Your task to perform on an android device: What's the news in theFalkland Islands? Image 0: 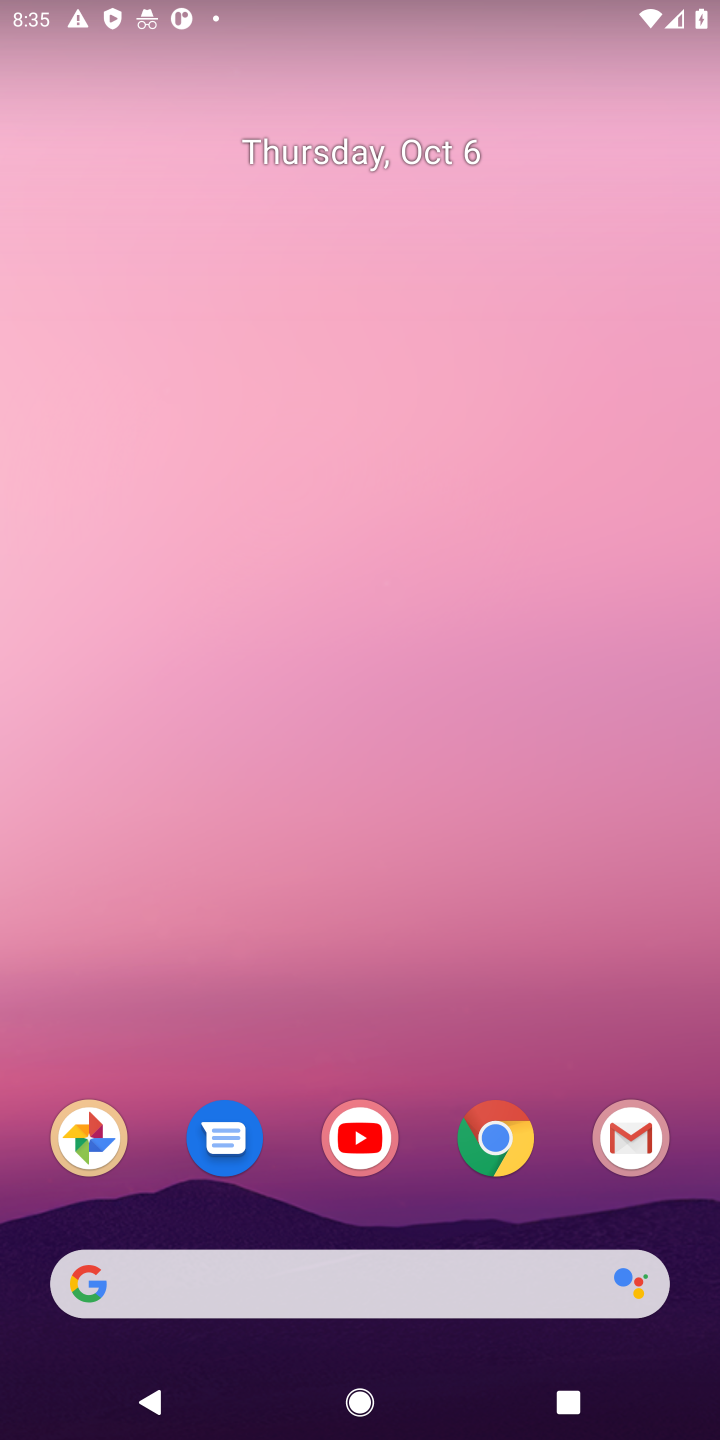
Step 0: click (493, 1137)
Your task to perform on an android device: What's the news in theFalkland Islands? Image 1: 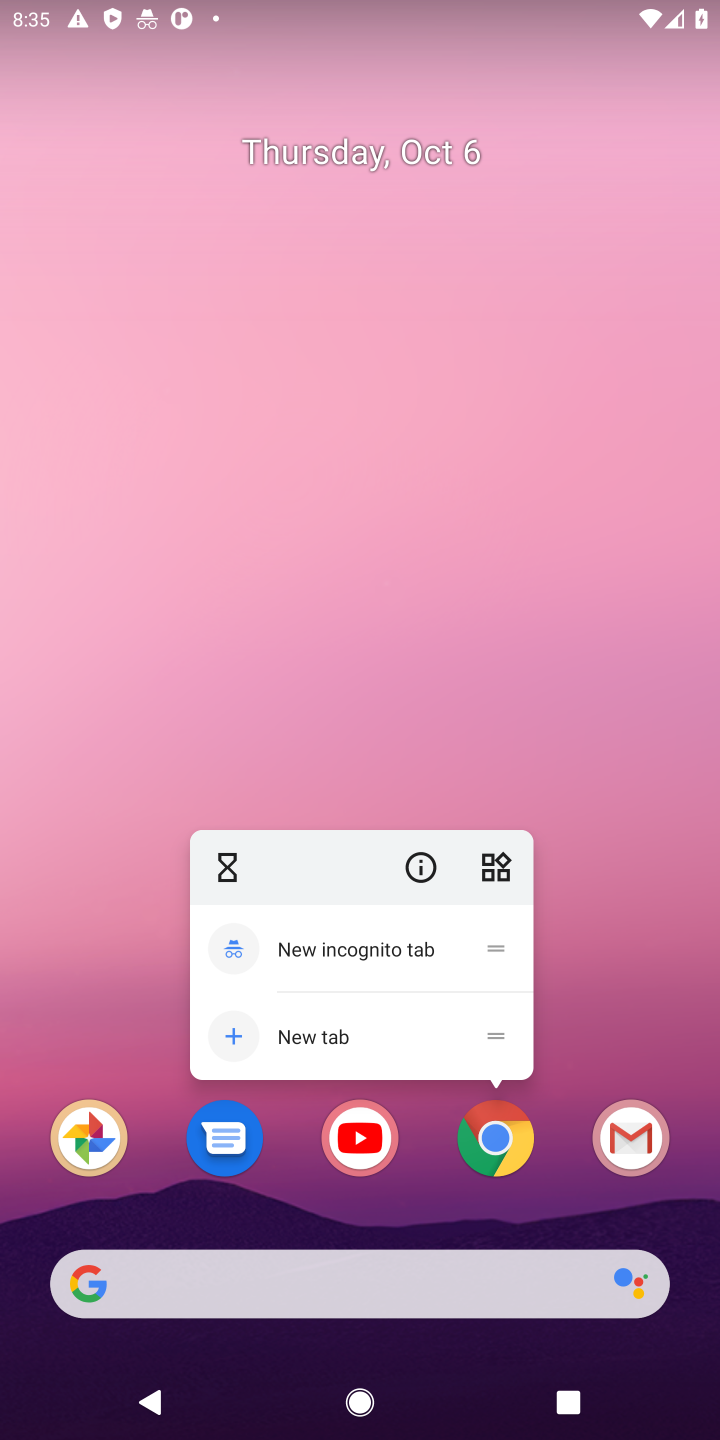
Step 1: click (498, 1132)
Your task to perform on an android device: What's the news in theFalkland Islands? Image 2: 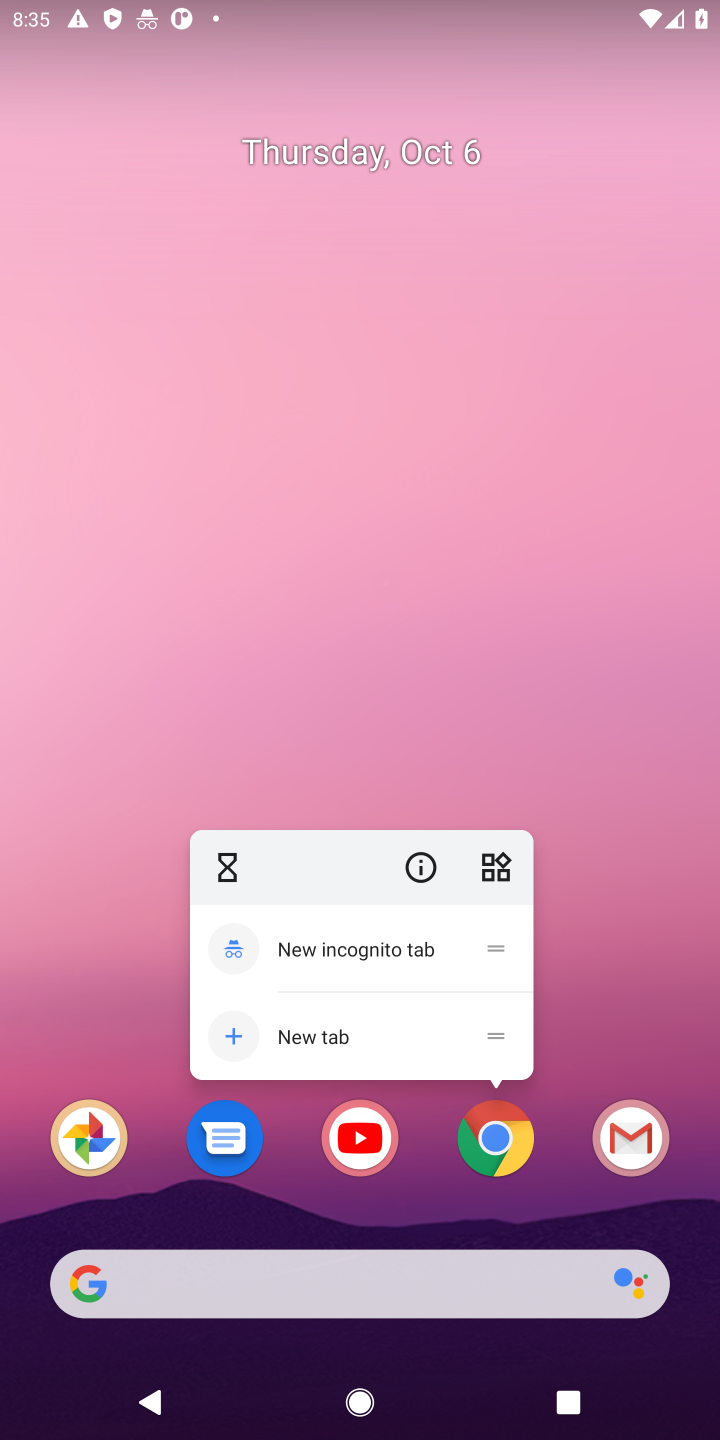
Step 2: click (498, 1132)
Your task to perform on an android device: What's the news in theFalkland Islands? Image 3: 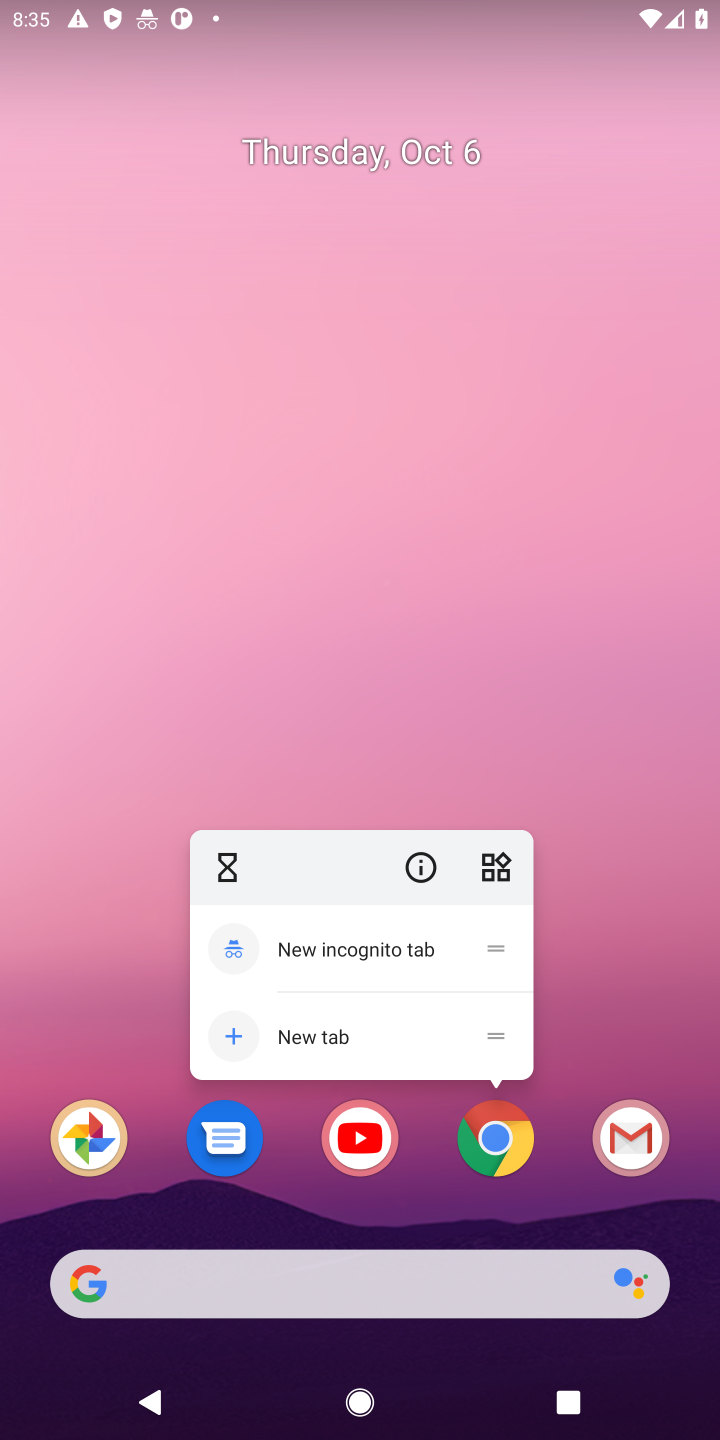
Step 3: click (498, 1136)
Your task to perform on an android device: What's the news in theFalkland Islands? Image 4: 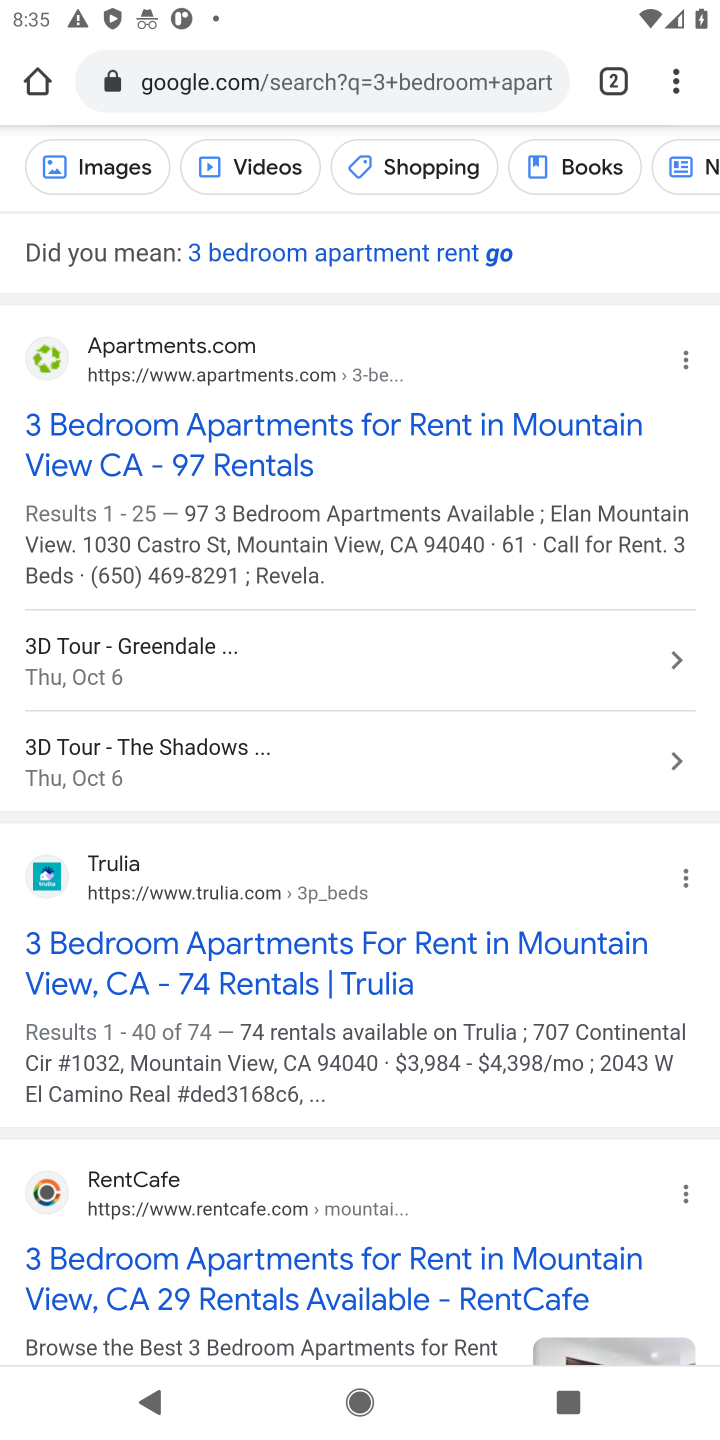
Step 4: click (513, 69)
Your task to perform on an android device: What's the news in theFalkland Islands? Image 5: 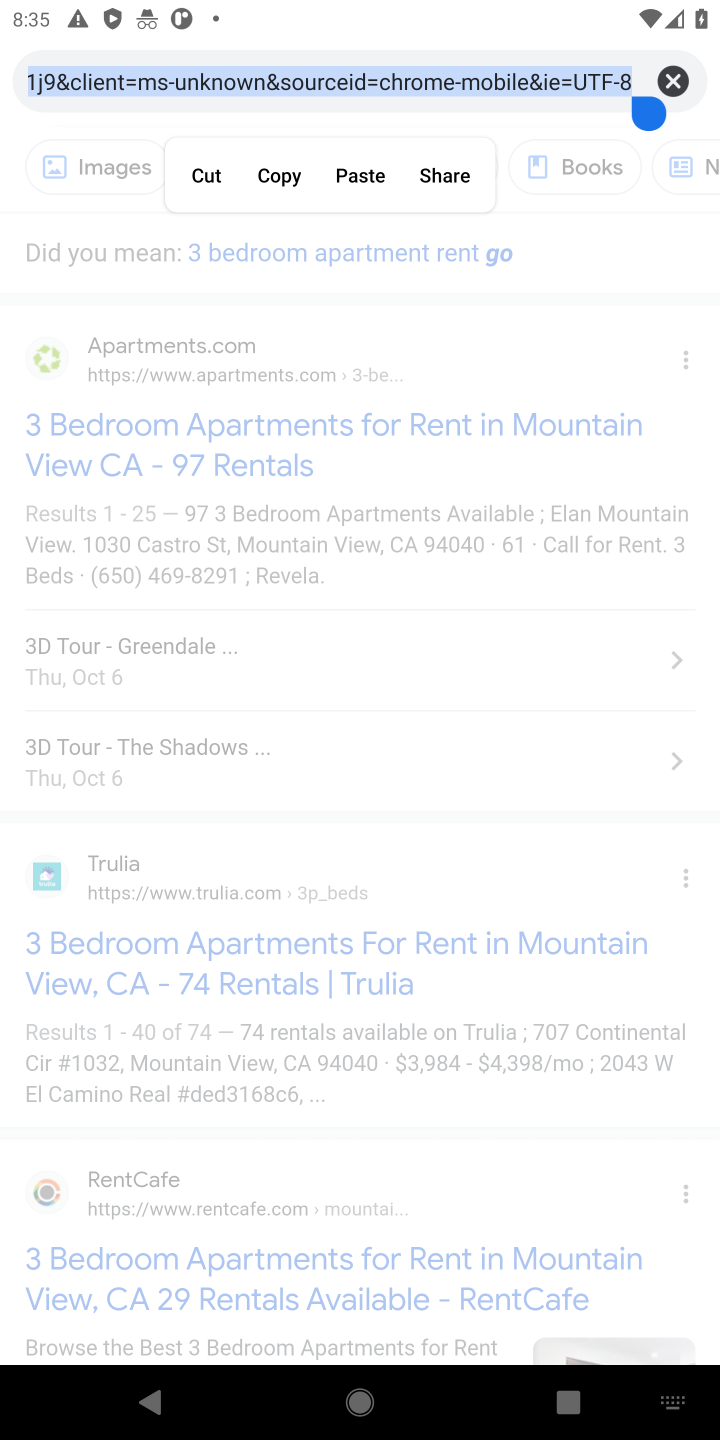
Step 5: click (672, 66)
Your task to perform on an android device: What's the news in theFalkland Islands? Image 6: 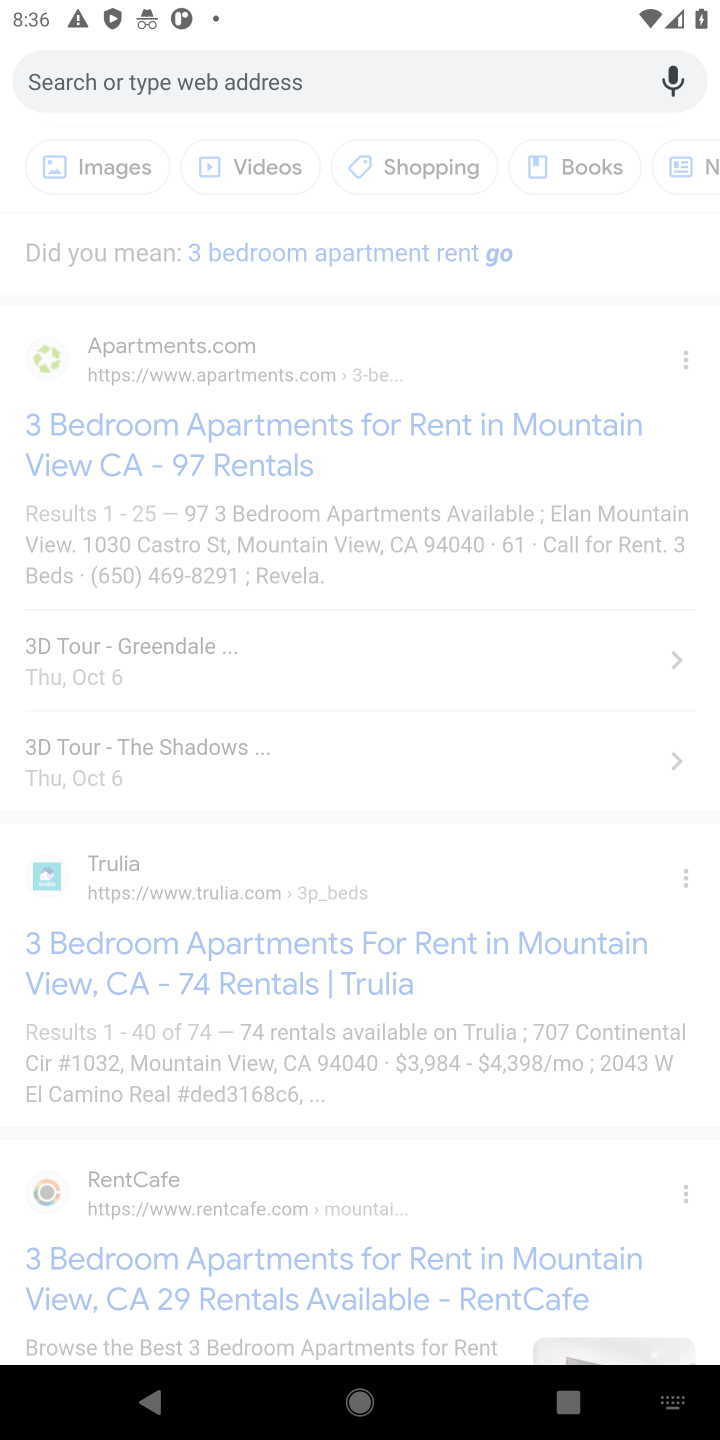
Step 6: type "news in theFalkland Islands"
Your task to perform on an android device: What's the news in theFalkland Islands? Image 7: 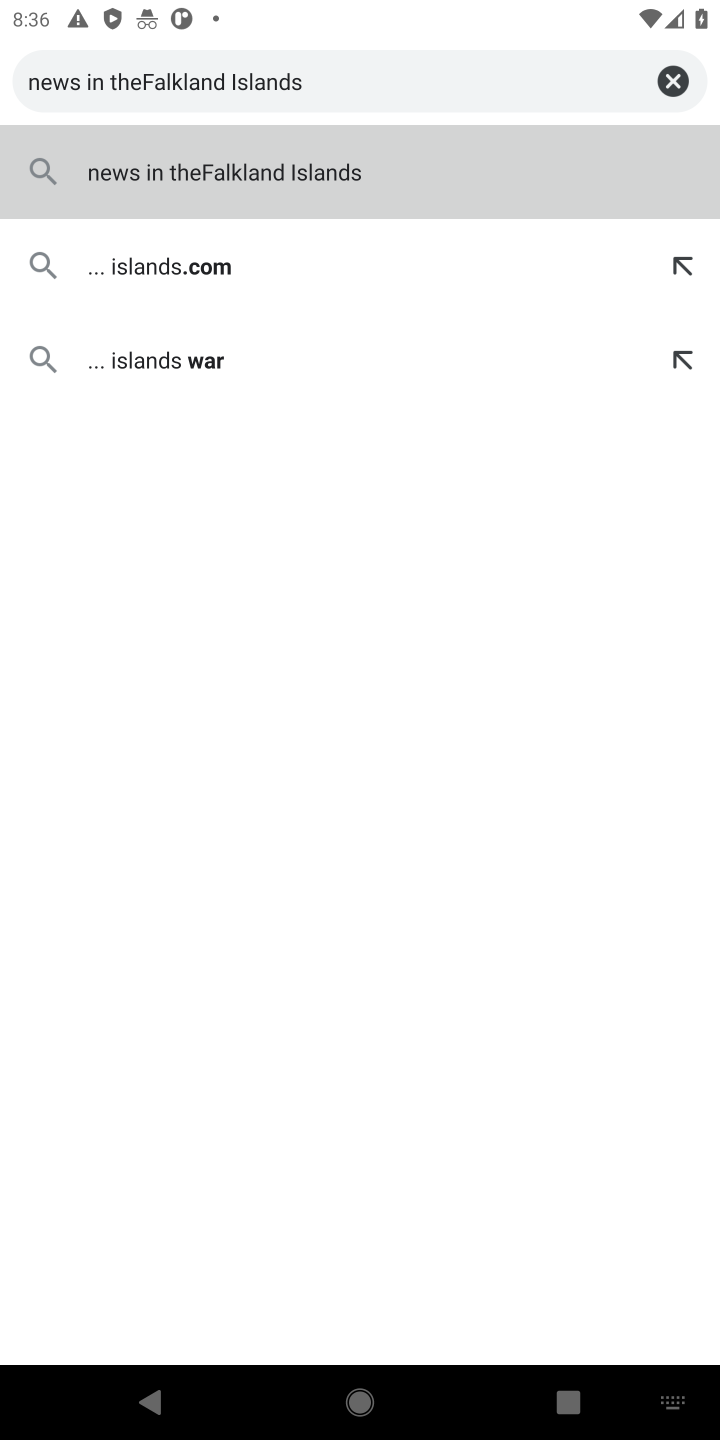
Step 7: click (322, 173)
Your task to perform on an android device: What's the news in theFalkland Islands? Image 8: 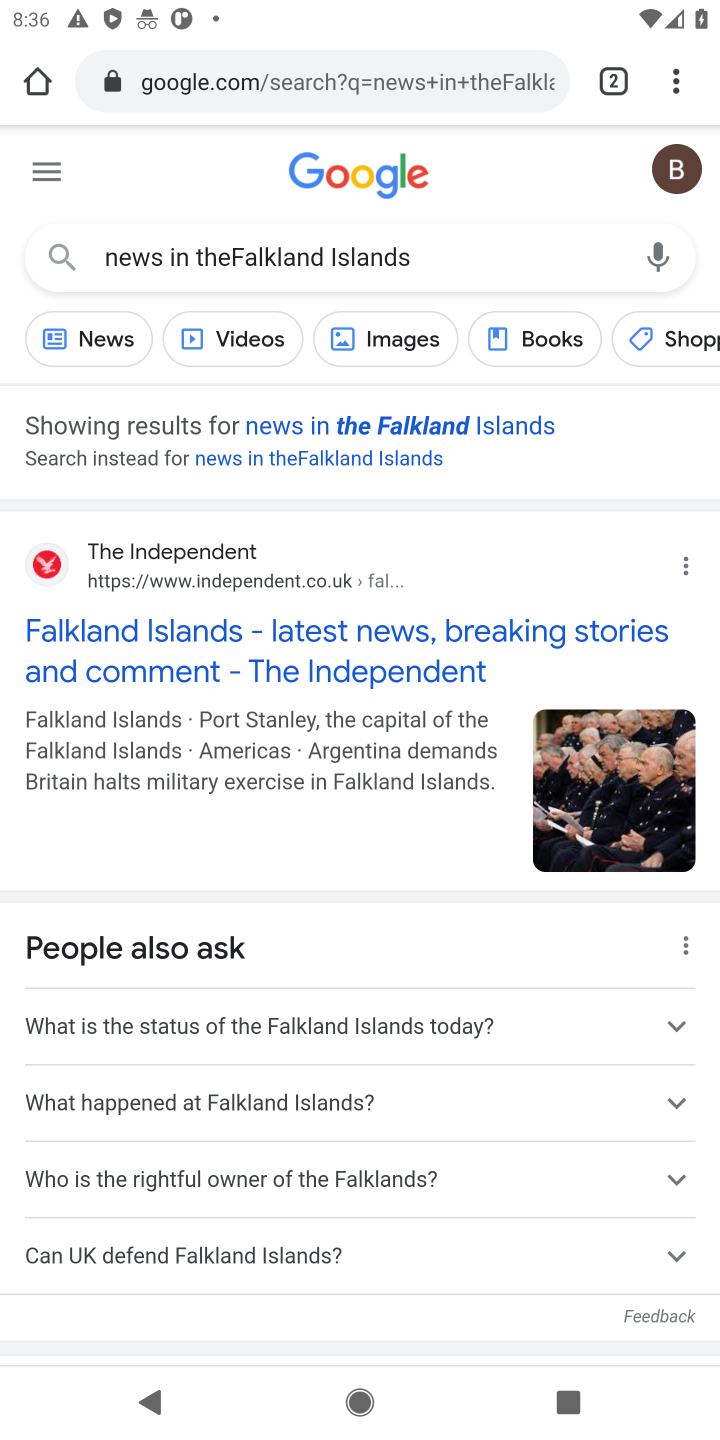
Step 8: click (321, 637)
Your task to perform on an android device: What's the news in theFalkland Islands? Image 9: 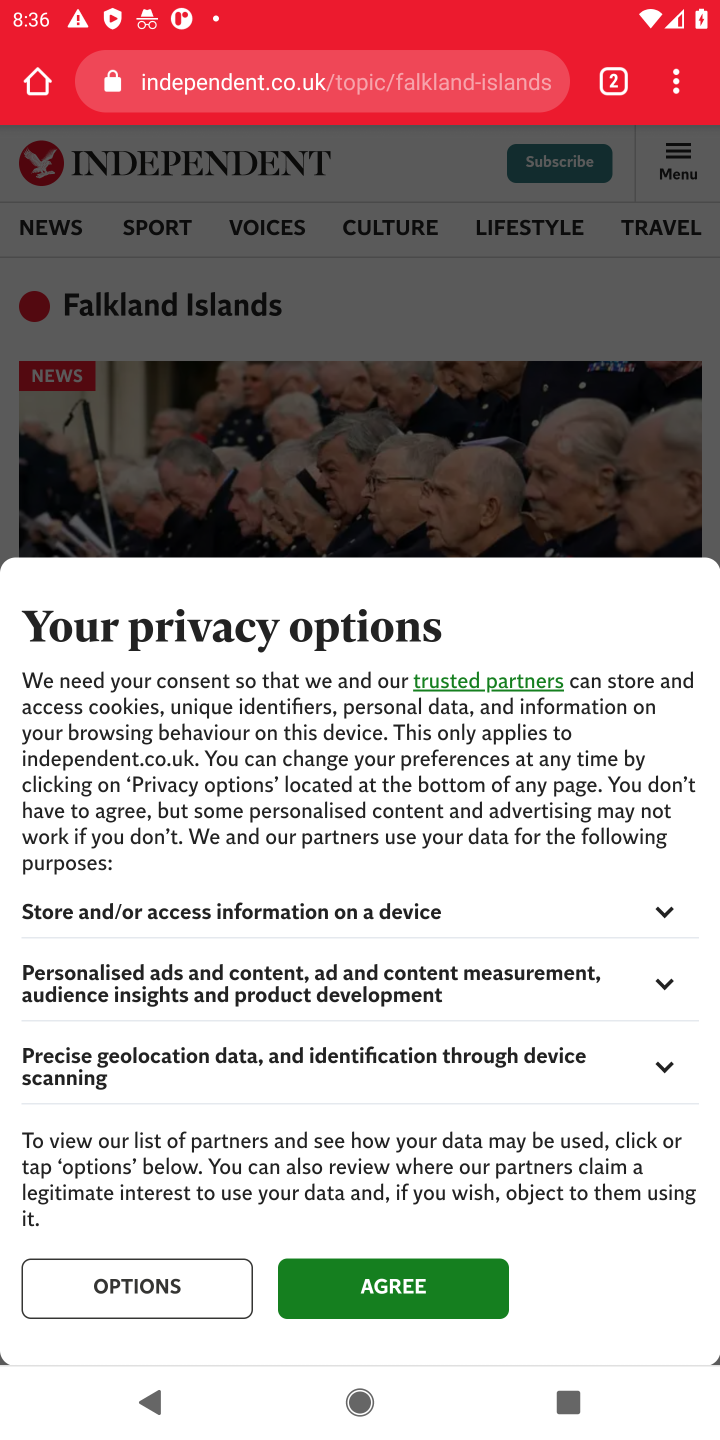
Step 9: click (347, 1285)
Your task to perform on an android device: What's the news in theFalkland Islands? Image 10: 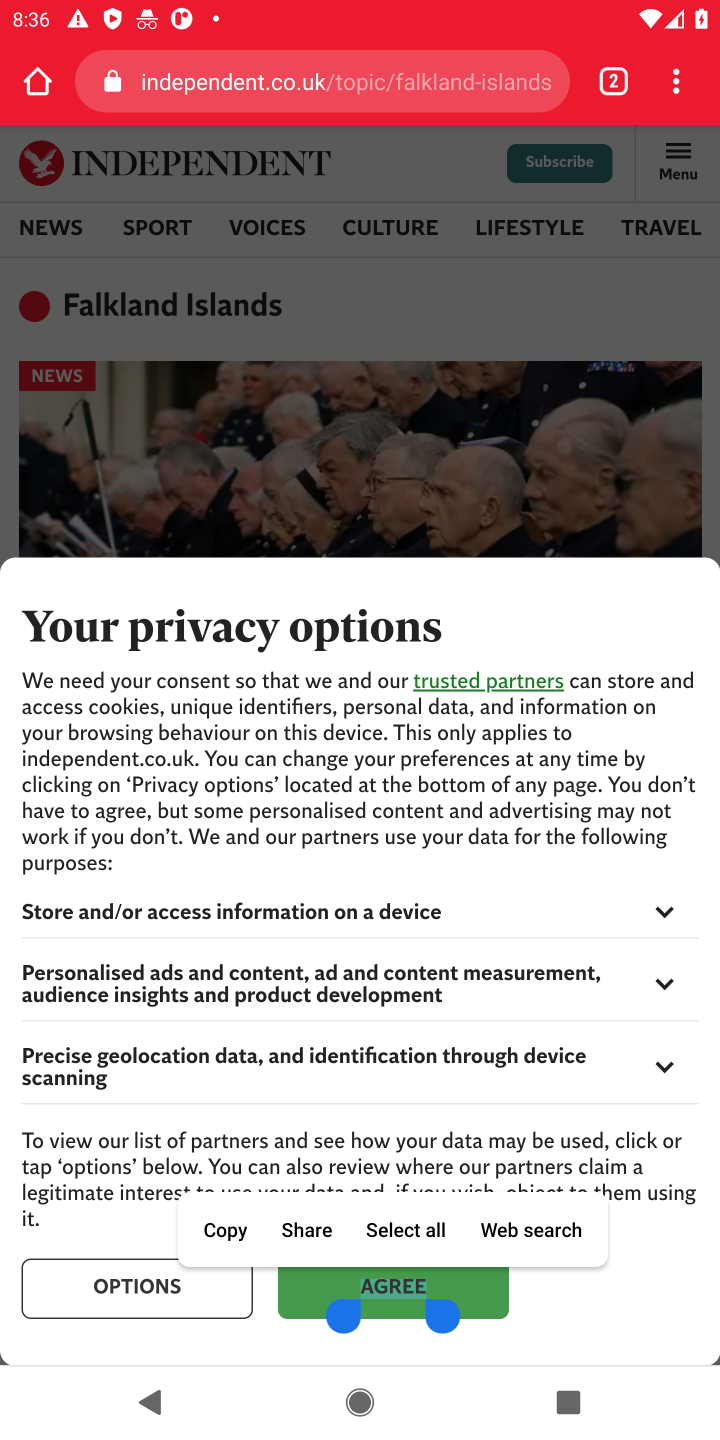
Step 10: click (394, 1290)
Your task to perform on an android device: What's the news in theFalkland Islands? Image 11: 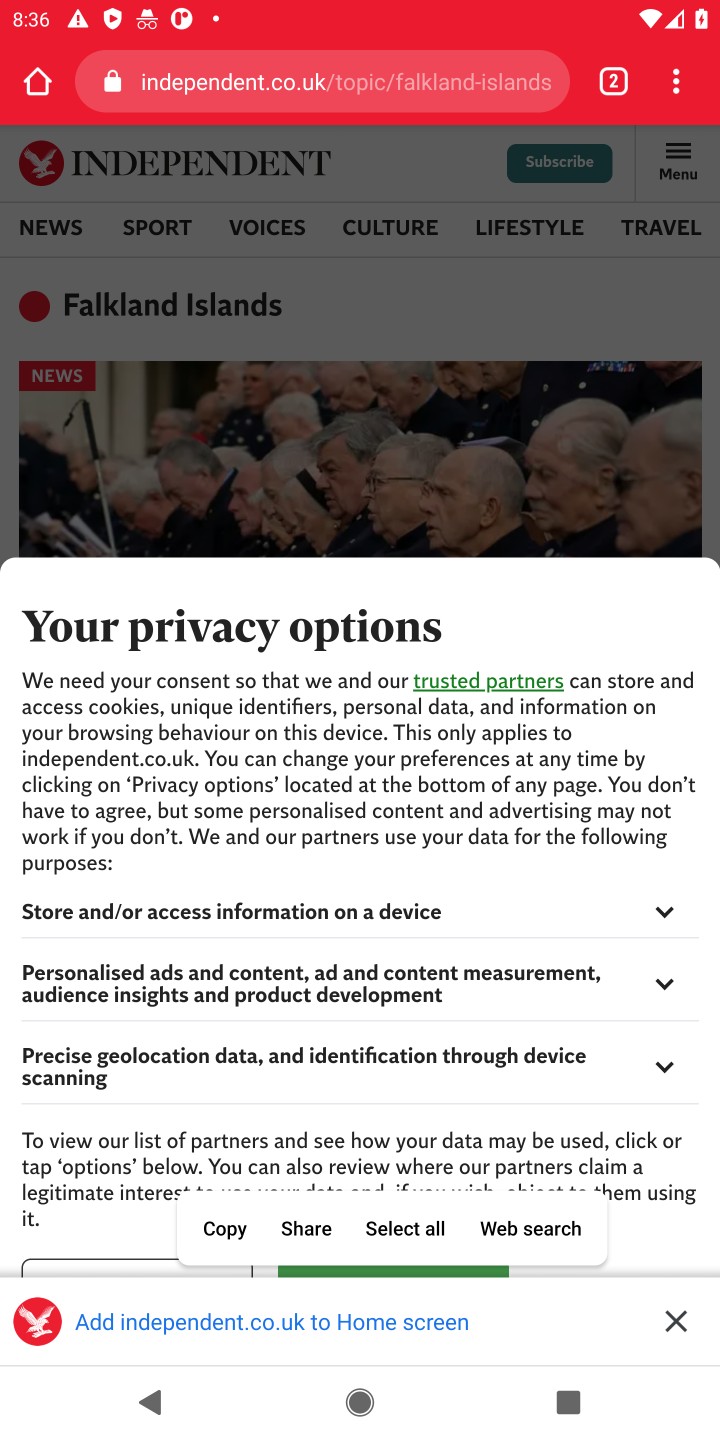
Step 11: click (672, 1320)
Your task to perform on an android device: What's the news in theFalkland Islands? Image 12: 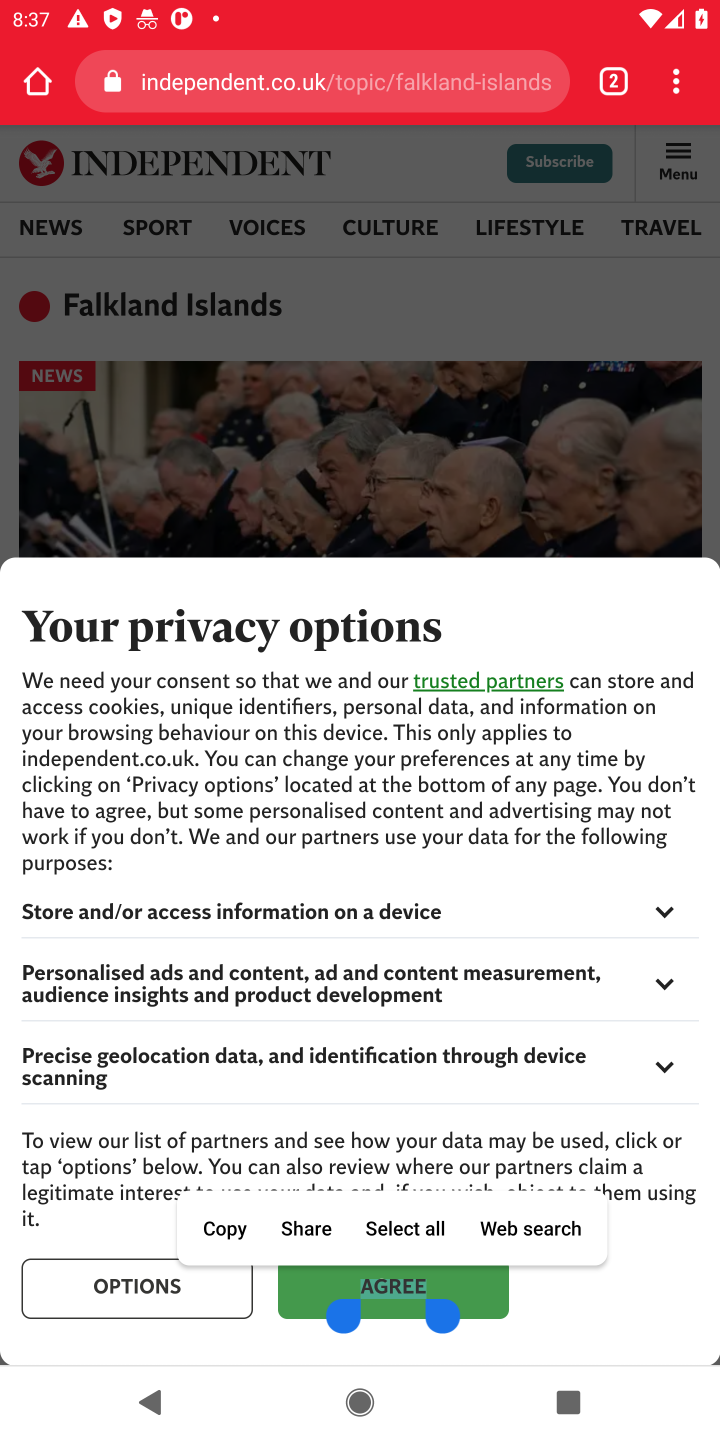
Step 12: click (404, 1290)
Your task to perform on an android device: What's the news in theFalkland Islands? Image 13: 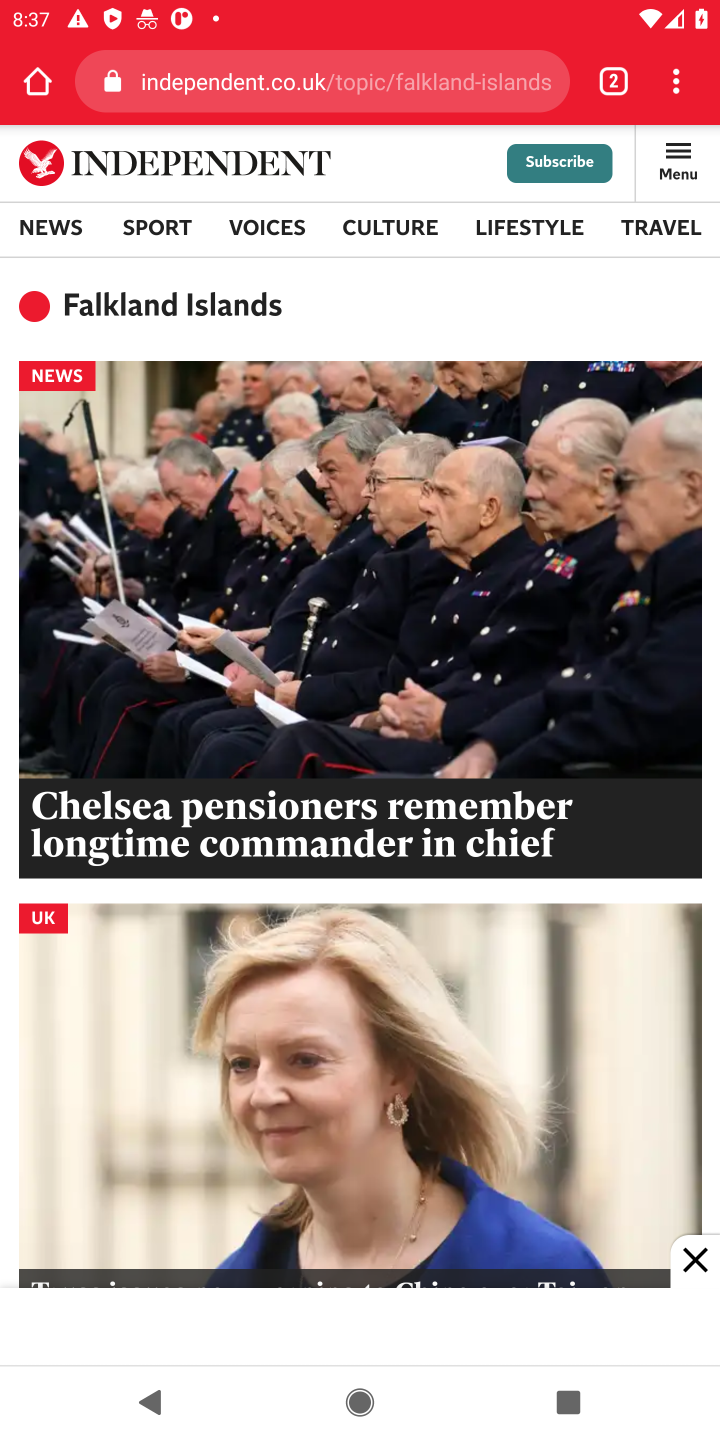
Step 13: task complete